Your task to perform on an android device: Open maps Image 0: 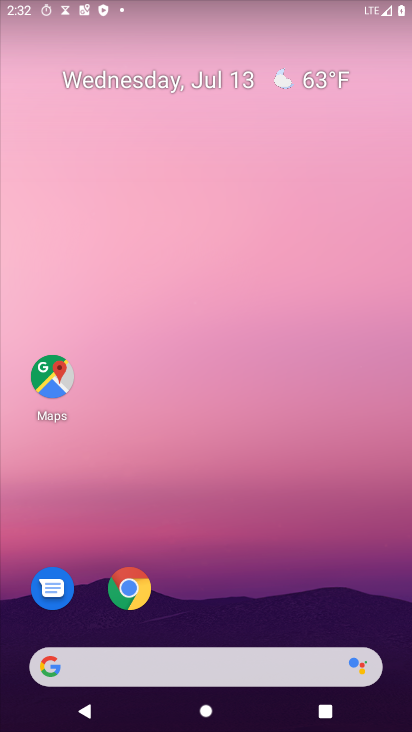
Step 0: click (45, 378)
Your task to perform on an android device: Open maps Image 1: 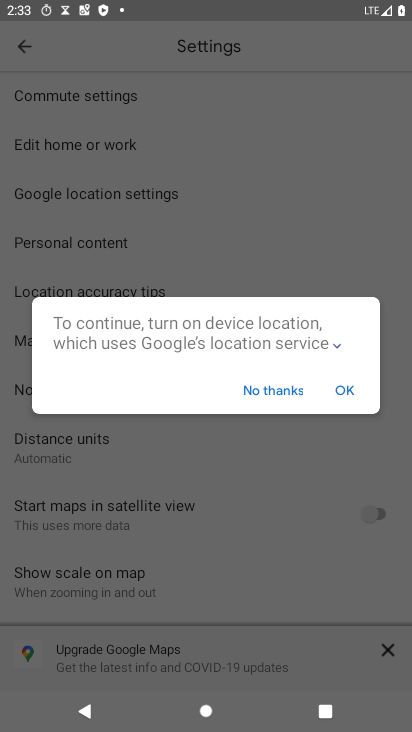
Step 1: press home button
Your task to perform on an android device: Open maps Image 2: 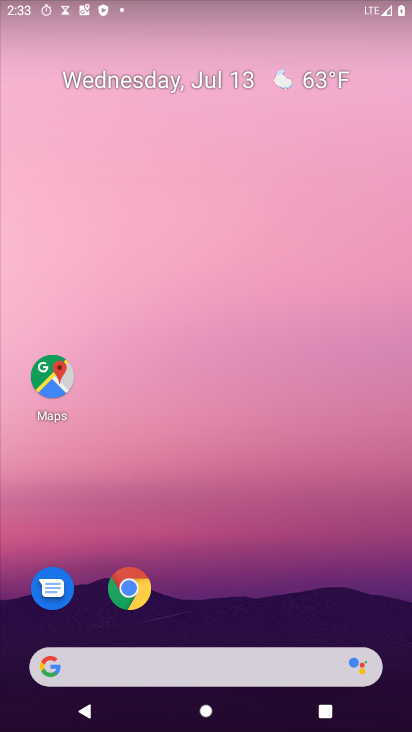
Step 2: click (50, 375)
Your task to perform on an android device: Open maps Image 3: 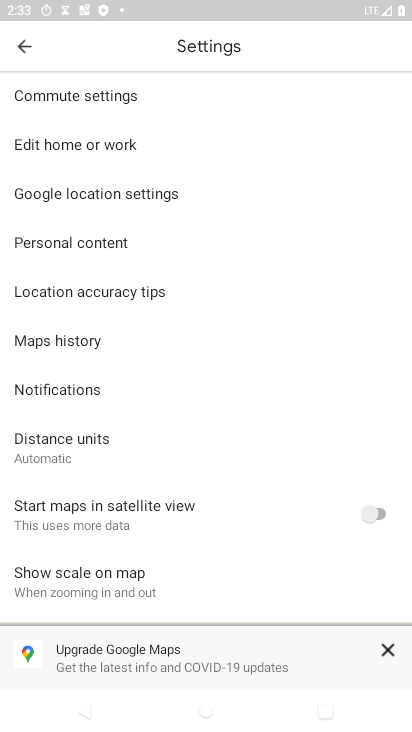
Step 3: task complete